Your task to perform on an android device: toggle notifications settings in the gmail app Image 0: 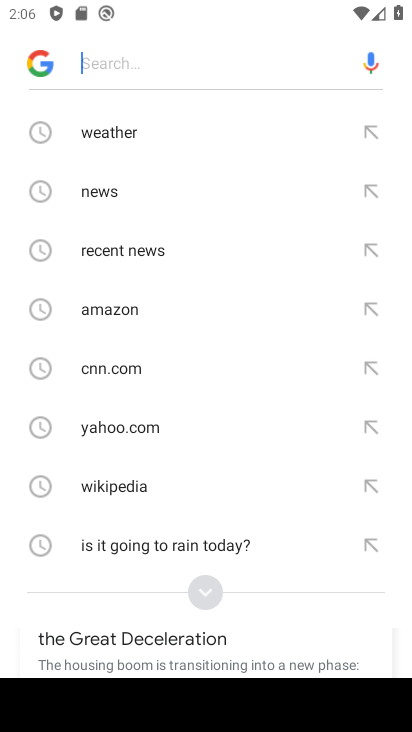
Step 0: press home button
Your task to perform on an android device: toggle notifications settings in the gmail app Image 1: 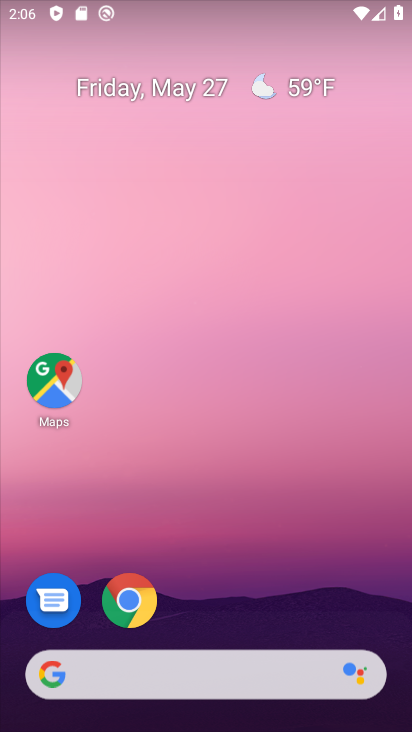
Step 1: drag from (236, 603) to (213, 223)
Your task to perform on an android device: toggle notifications settings in the gmail app Image 2: 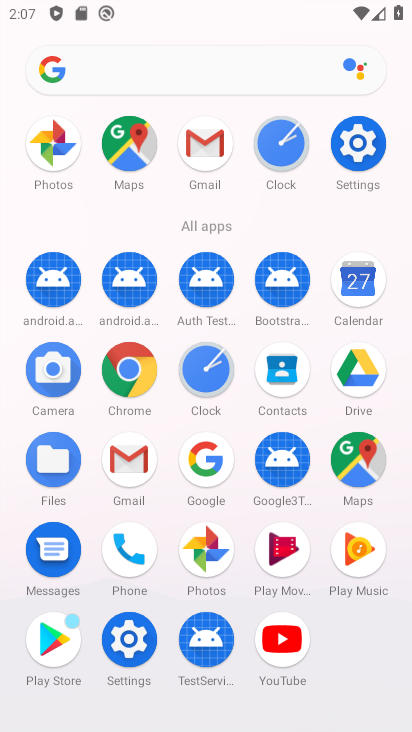
Step 2: click (202, 141)
Your task to perform on an android device: toggle notifications settings in the gmail app Image 3: 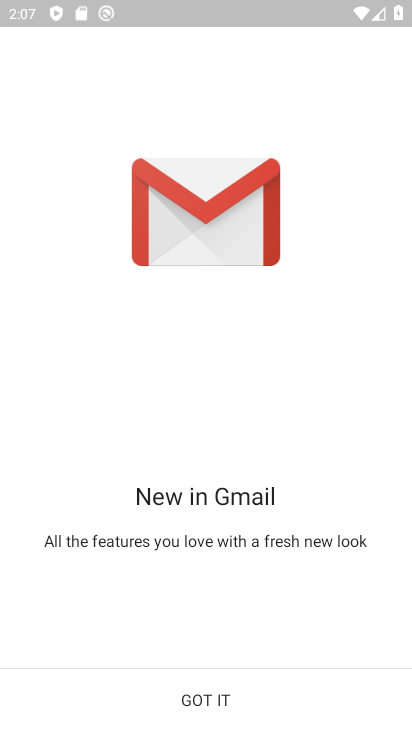
Step 3: click (204, 701)
Your task to perform on an android device: toggle notifications settings in the gmail app Image 4: 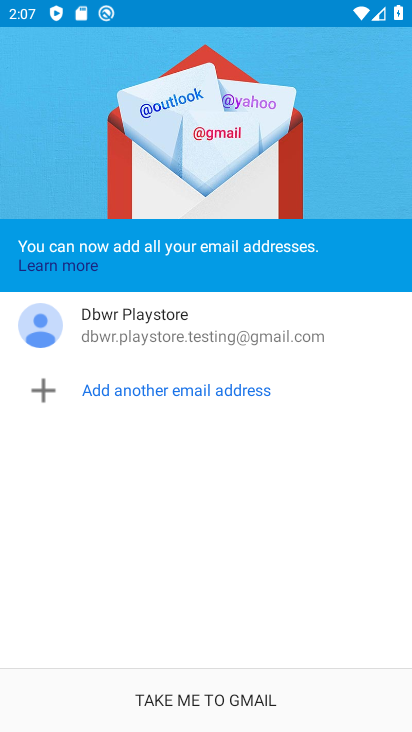
Step 4: click (204, 701)
Your task to perform on an android device: toggle notifications settings in the gmail app Image 5: 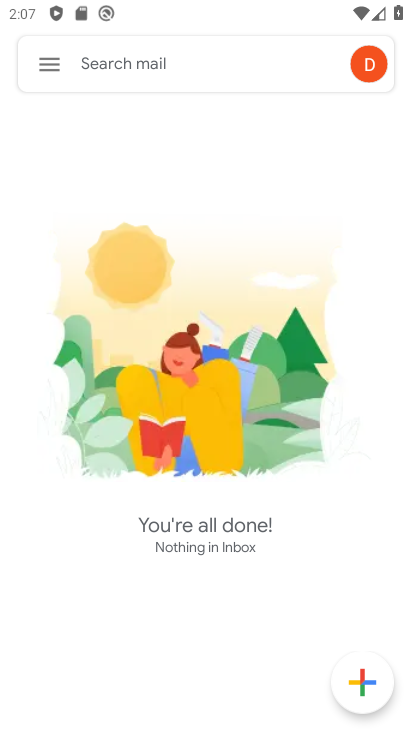
Step 5: click (48, 63)
Your task to perform on an android device: toggle notifications settings in the gmail app Image 6: 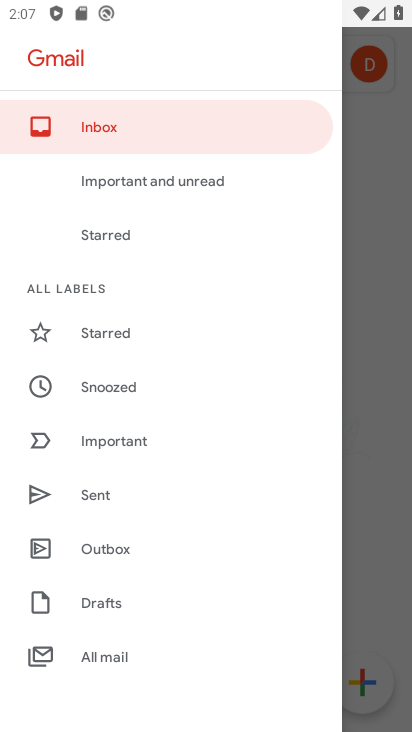
Step 6: drag from (158, 566) to (183, 450)
Your task to perform on an android device: toggle notifications settings in the gmail app Image 7: 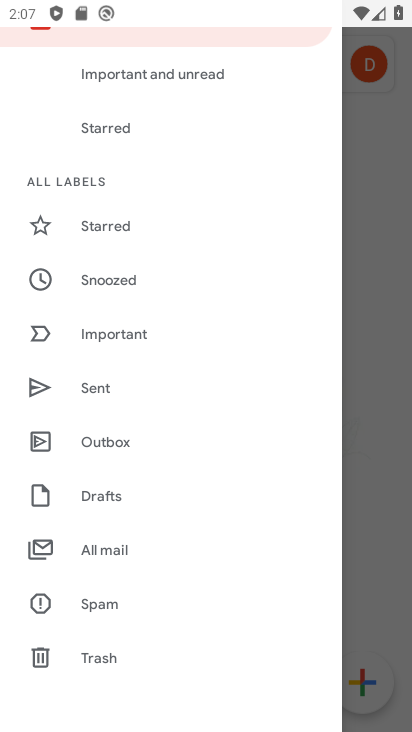
Step 7: drag from (151, 604) to (195, 530)
Your task to perform on an android device: toggle notifications settings in the gmail app Image 8: 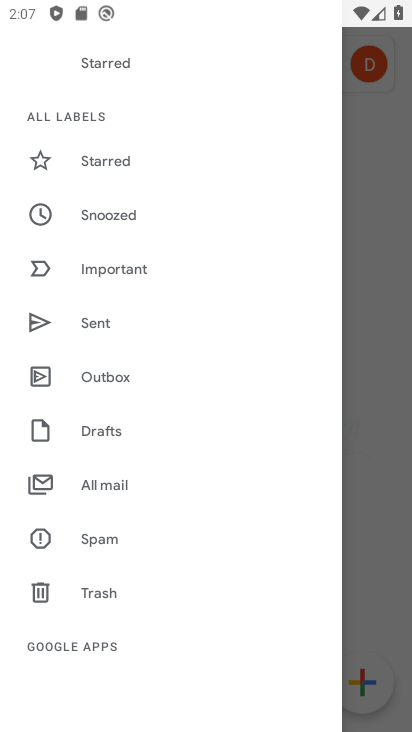
Step 8: drag from (153, 614) to (205, 498)
Your task to perform on an android device: toggle notifications settings in the gmail app Image 9: 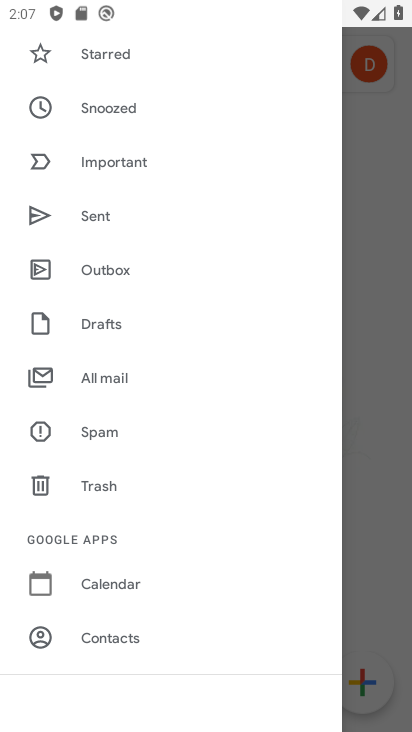
Step 9: drag from (142, 607) to (202, 487)
Your task to perform on an android device: toggle notifications settings in the gmail app Image 10: 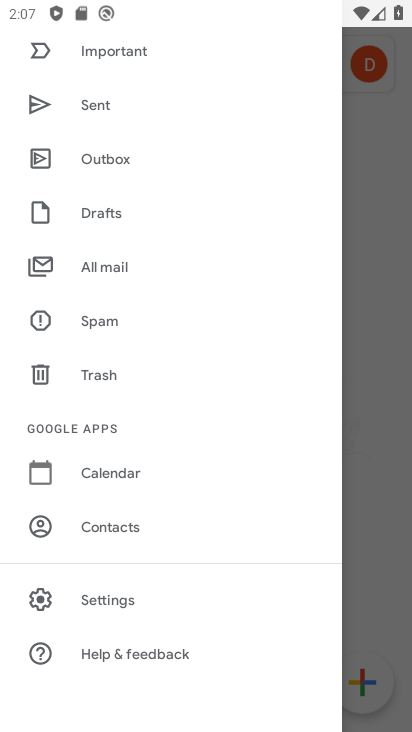
Step 10: click (127, 605)
Your task to perform on an android device: toggle notifications settings in the gmail app Image 11: 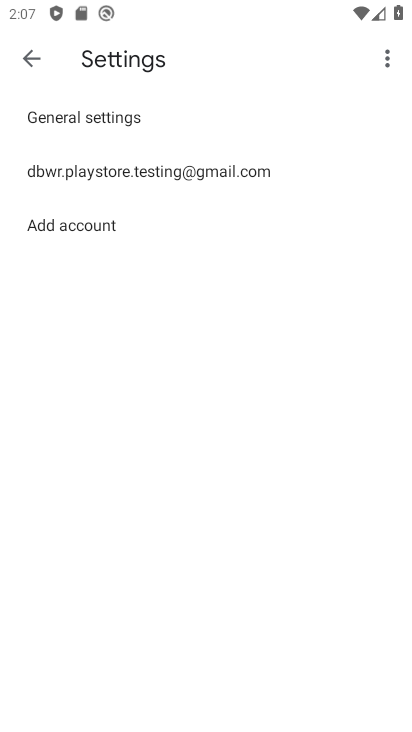
Step 11: click (208, 178)
Your task to perform on an android device: toggle notifications settings in the gmail app Image 12: 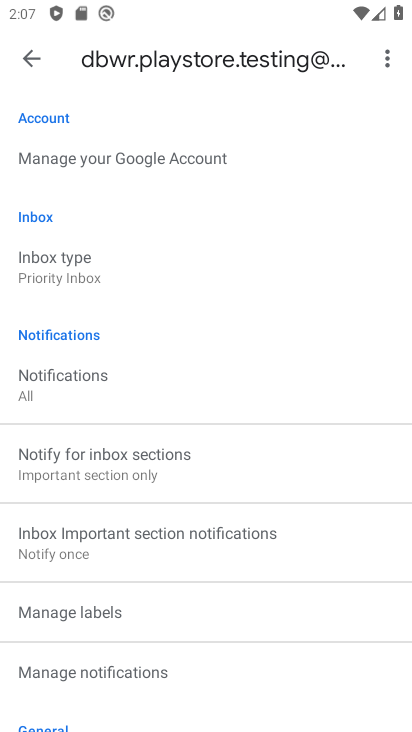
Step 12: drag from (85, 550) to (163, 459)
Your task to perform on an android device: toggle notifications settings in the gmail app Image 13: 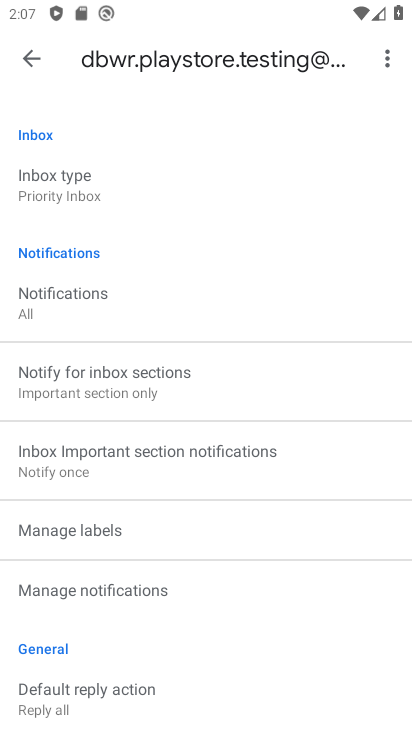
Step 13: click (113, 597)
Your task to perform on an android device: toggle notifications settings in the gmail app Image 14: 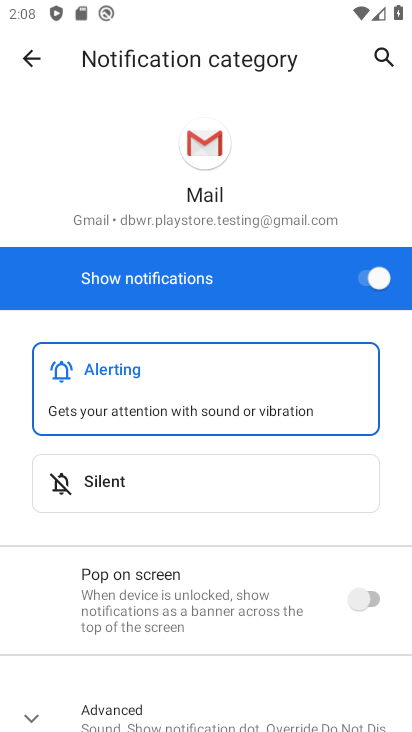
Step 14: click (366, 275)
Your task to perform on an android device: toggle notifications settings in the gmail app Image 15: 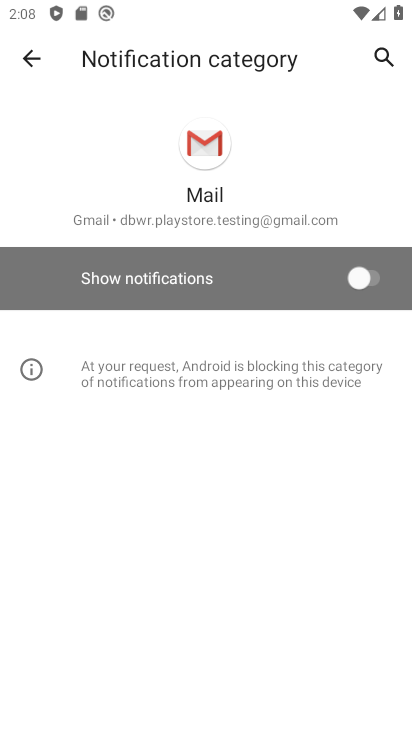
Step 15: task complete